Your task to perform on an android device: turn on the 24-hour format for clock Image 0: 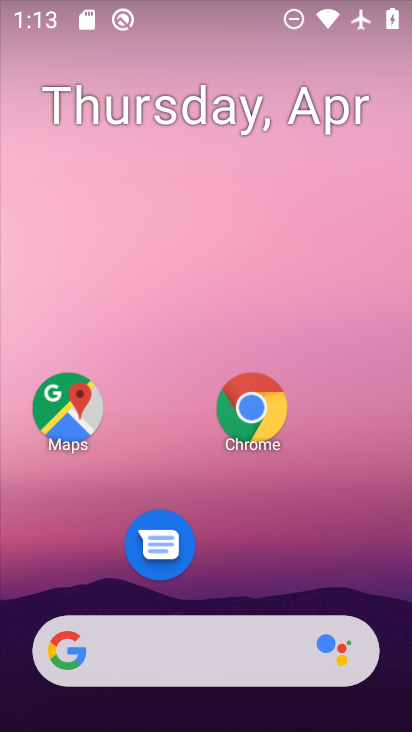
Step 0: drag from (291, 49) to (282, 0)
Your task to perform on an android device: turn on the 24-hour format for clock Image 1: 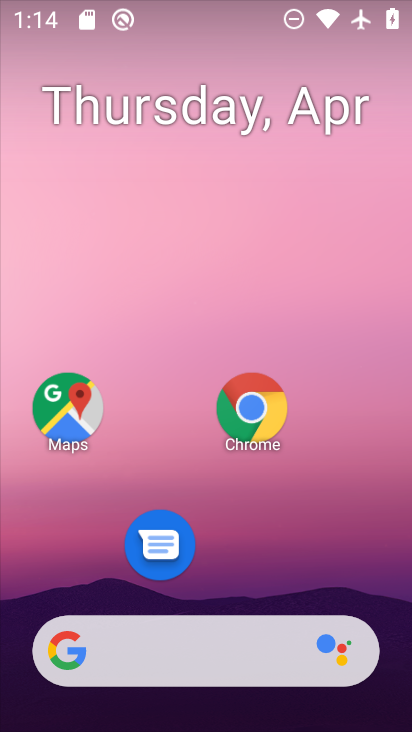
Step 1: drag from (259, 509) to (289, 93)
Your task to perform on an android device: turn on the 24-hour format for clock Image 2: 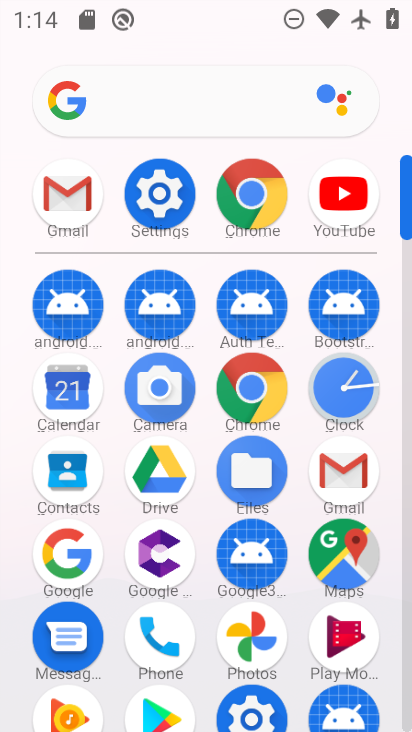
Step 2: click (355, 374)
Your task to perform on an android device: turn on the 24-hour format for clock Image 3: 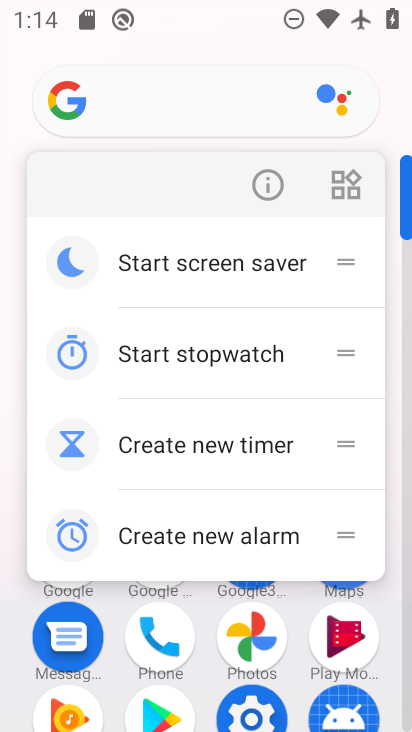
Step 3: click (220, 62)
Your task to perform on an android device: turn on the 24-hour format for clock Image 4: 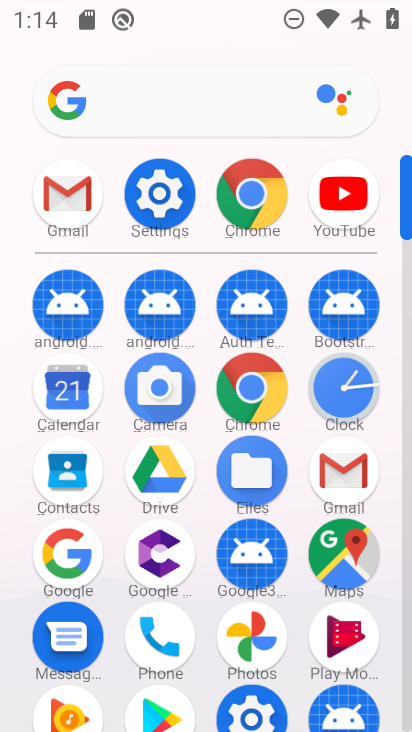
Step 4: click (342, 391)
Your task to perform on an android device: turn on the 24-hour format for clock Image 5: 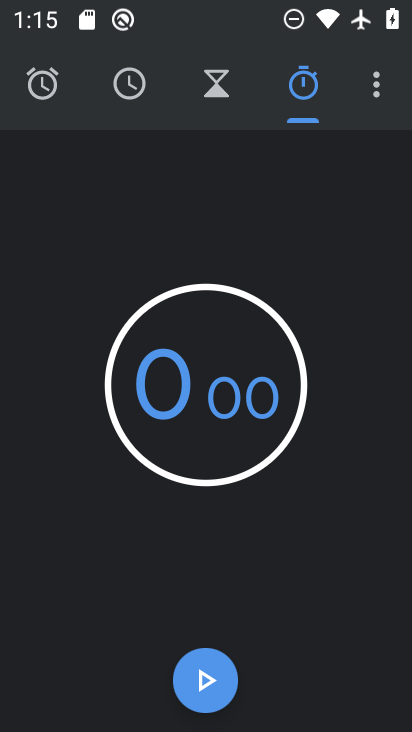
Step 5: click (385, 84)
Your task to perform on an android device: turn on the 24-hour format for clock Image 6: 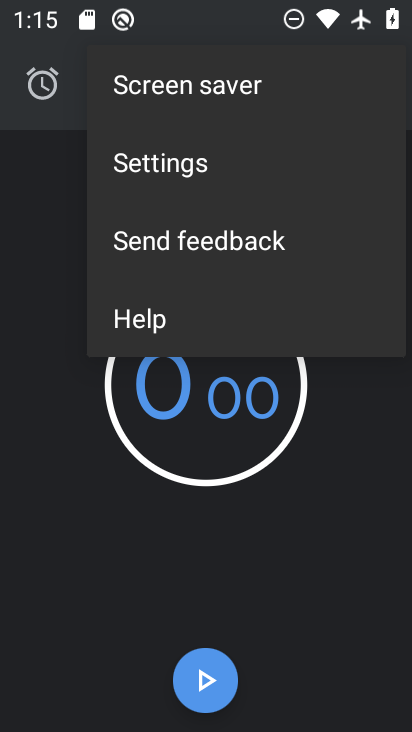
Step 6: click (187, 156)
Your task to perform on an android device: turn on the 24-hour format for clock Image 7: 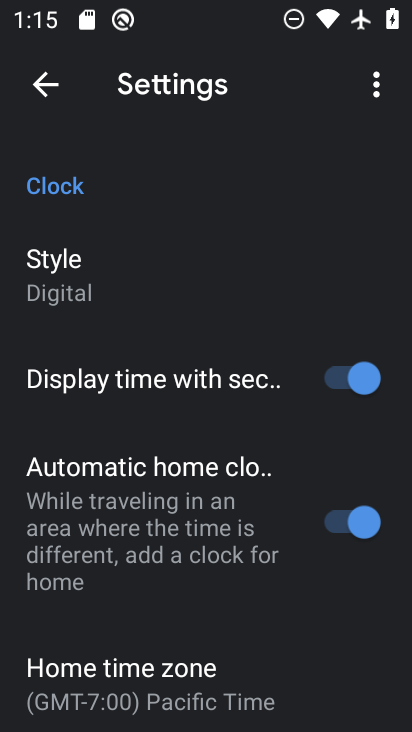
Step 7: drag from (239, 658) to (307, 127)
Your task to perform on an android device: turn on the 24-hour format for clock Image 8: 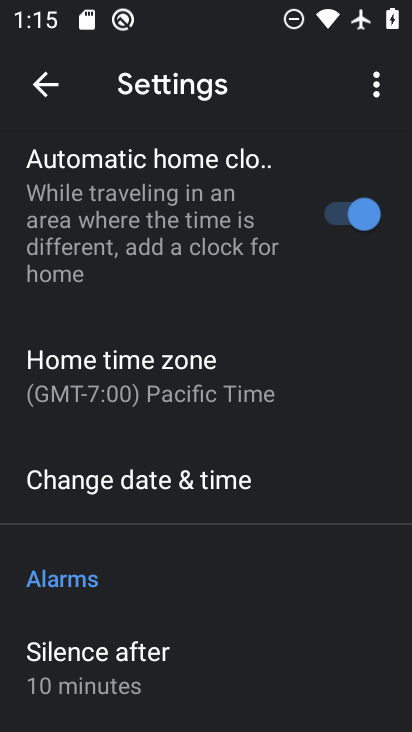
Step 8: click (153, 474)
Your task to perform on an android device: turn on the 24-hour format for clock Image 9: 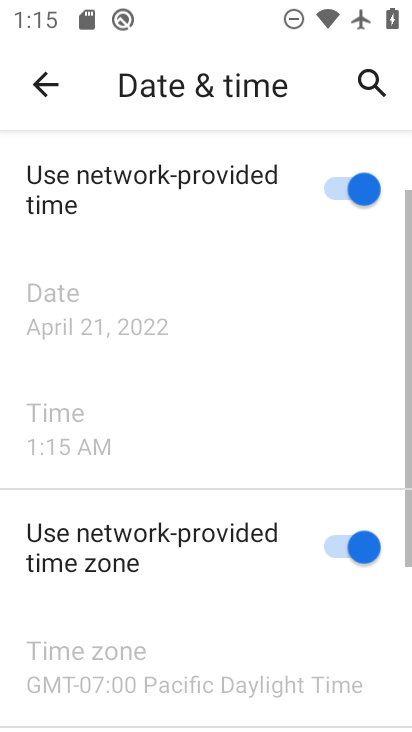
Step 9: drag from (239, 607) to (217, 101)
Your task to perform on an android device: turn on the 24-hour format for clock Image 10: 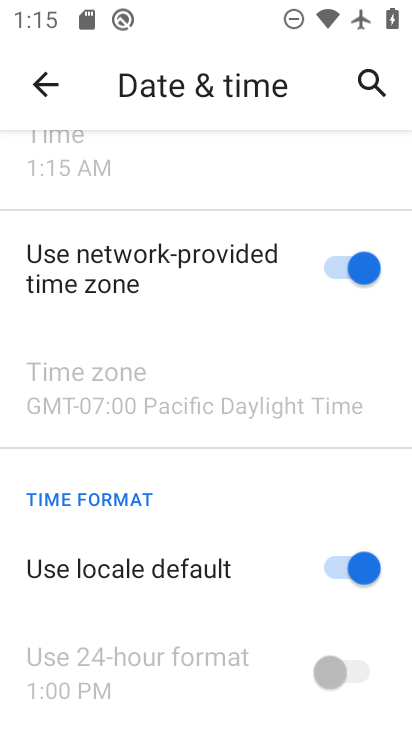
Step 10: click (356, 559)
Your task to perform on an android device: turn on the 24-hour format for clock Image 11: 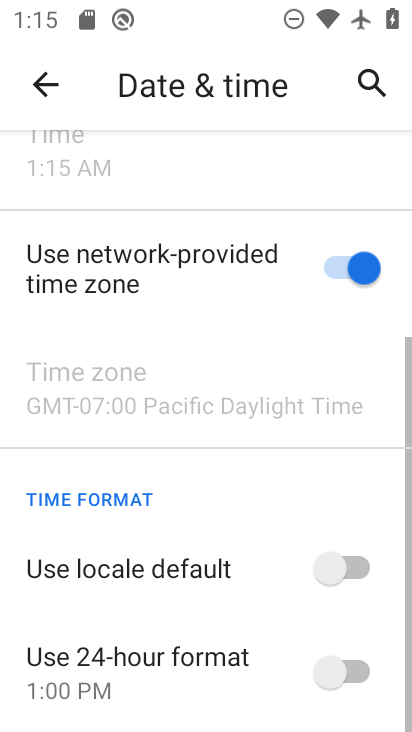
Step 11: click (345, 673)
Your task to perform on an android device: turn on the 24-hour format for clock Image 12: 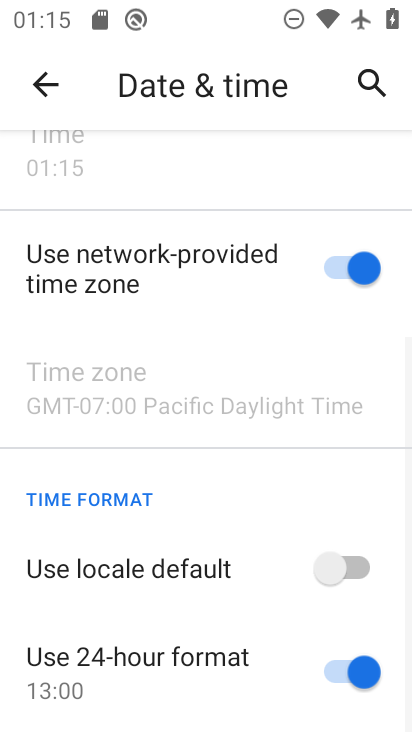
Step 12: task complete